Your task to perform on an android device: turn pop-ups off in chrome Image 0: 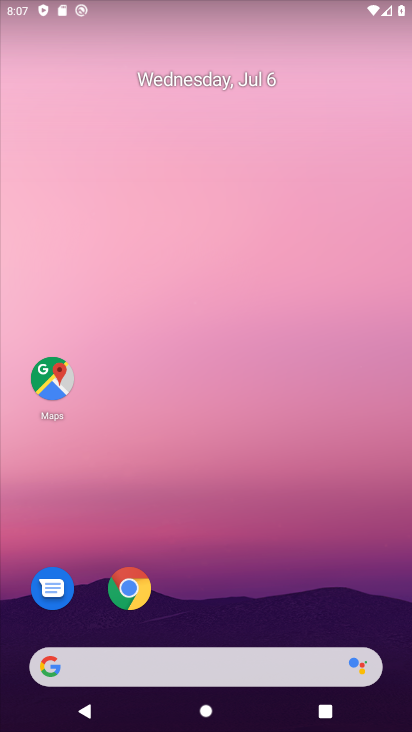
Step 0: drag from (246, 593) to (246, 257)
Your task to perform on an android device: turn pop-ups off in chrome Image 1: 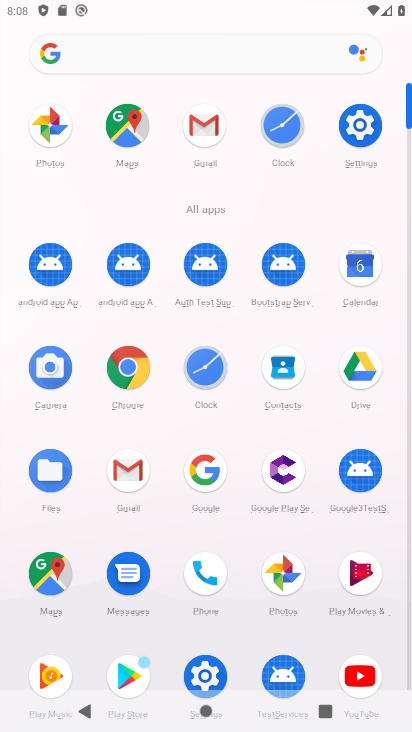
Step 1: click (124, 355)
Your task to perform on an android device: turn pop-ups off in chrome Image 2: 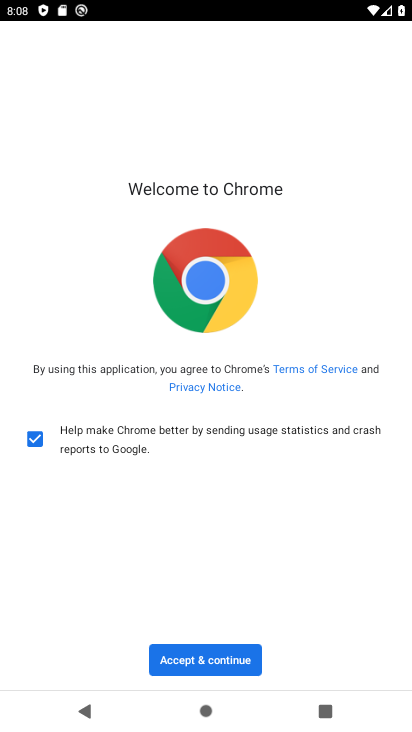
Step 2: click (219, 639)
Your task to perform on an android device: turn pop-ups off in chrome Image 3: 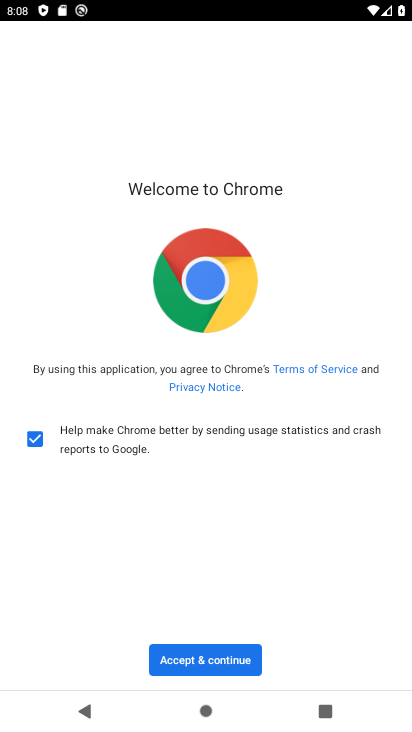
Step 3: click (219, 650)
Your task to perform on an android device: turn pop-ups off in chrome Image 4: 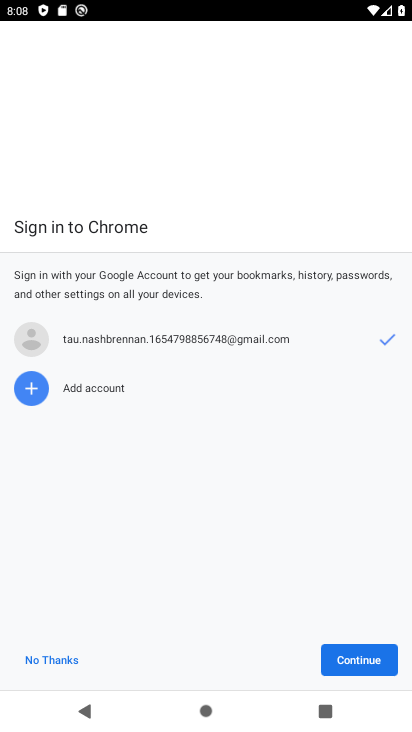
Step 4: click (351, 651)
Your task to perform on an android device: turn pop-ups off in chrome Image 5: 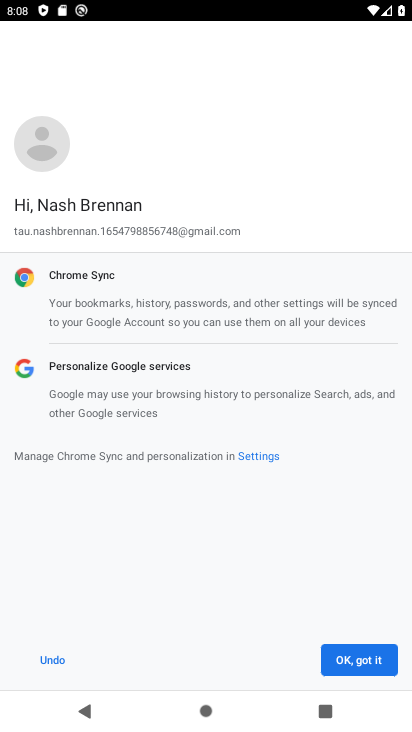
Step 5: click (351, 651)
Your task to perform on an android device: turn pop-ups off in chrome Image 6: 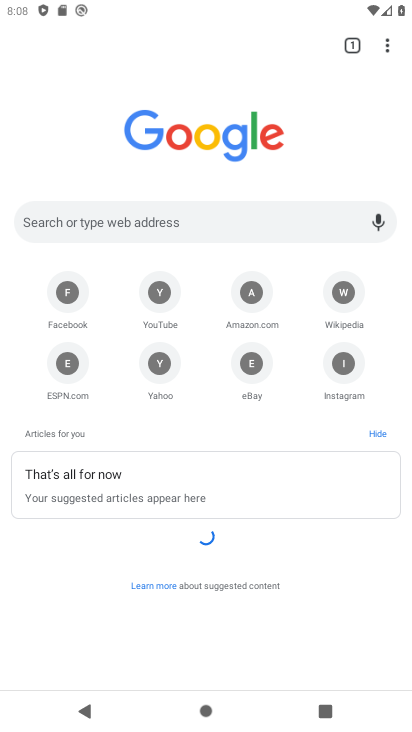
Step 6: click (383, 44)
Your task to perform on an android device: turn pop-ups off in chrome Image 7: 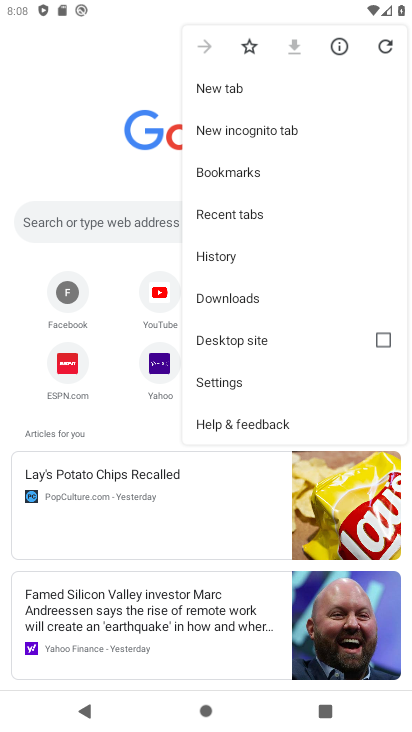
Step 7: click (235, 377)
Your task to perform on an android device: turn pop-ups off in chrome Image 8: 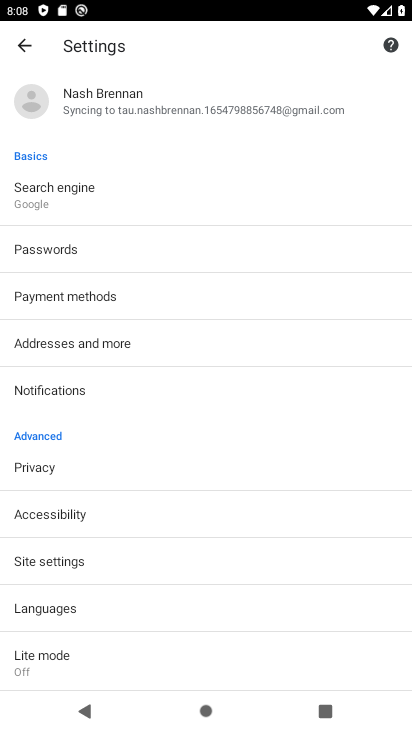
Step 8: click (134, 554)
Your task to perform on an android device: turn pop-ups off in chrome Image 9: 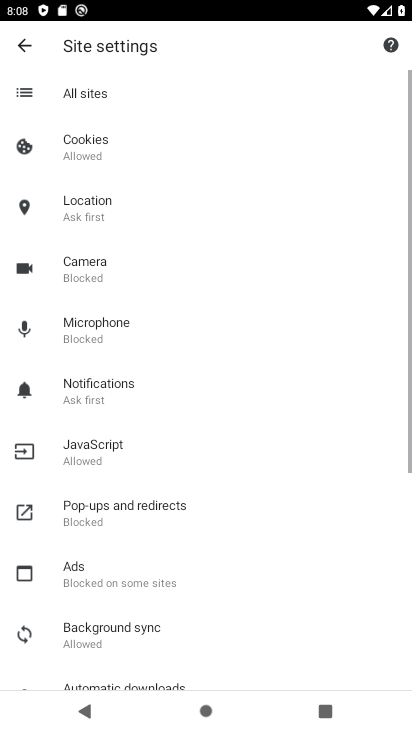
Step 9: click (201, 513)
Your task to perform on an android device: turn pop-ups off in chrome Image 10: 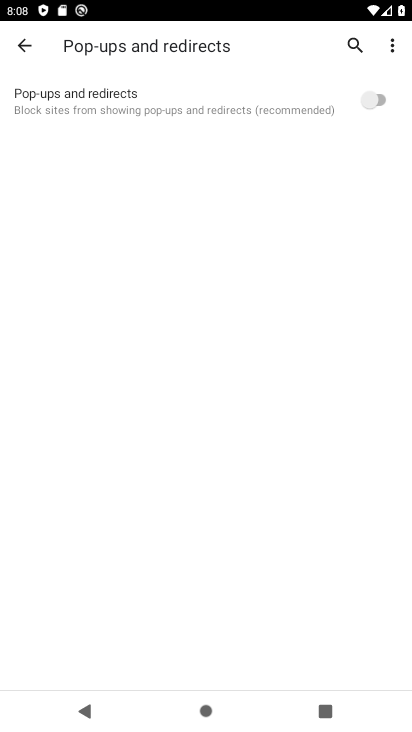
Step 10: task complete